Your task to perform on an android device: turn off picture-in-picture Image 0: 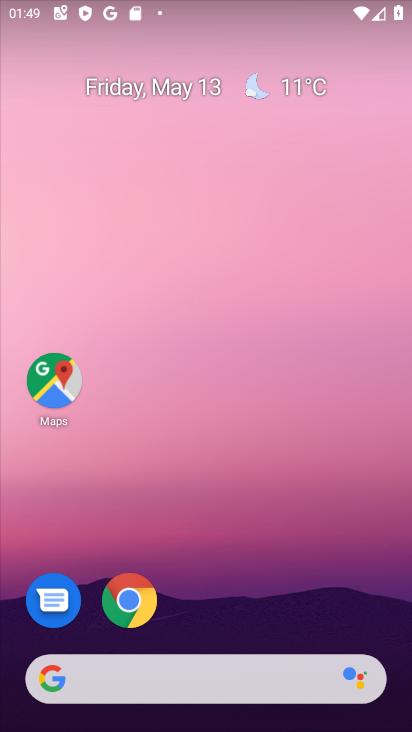
Step 0: drag from (205, 598) to (268, 371)
Your task to perform on an android device: turn off picture-in-picture Image 1: 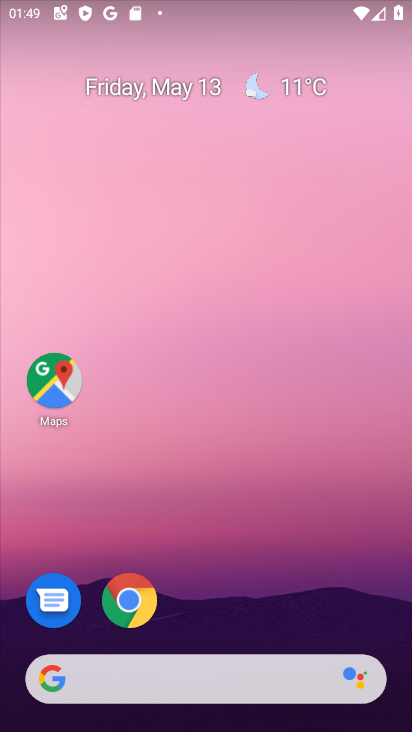
Step 1: drag from (195, 615) to (224, 121)
Your task to perform on an android device: turn off picture-in-picture Image 2: 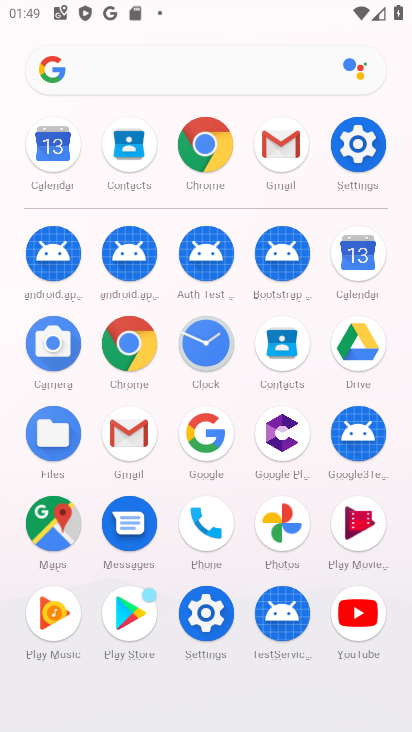
Step 2: click (197, 617)
Your task to perform on an android device: turn off picture-in-picture Image 3: 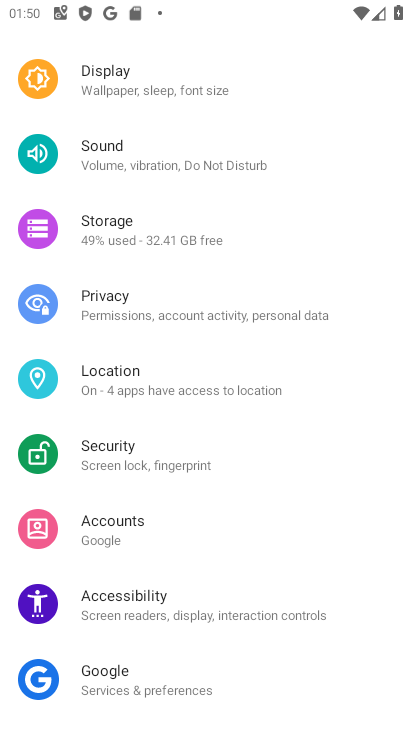
Step 3: drag from (190, 157) to (199, 634)
Your task to perform on an android device: turn off picture-in-picture Image 4: 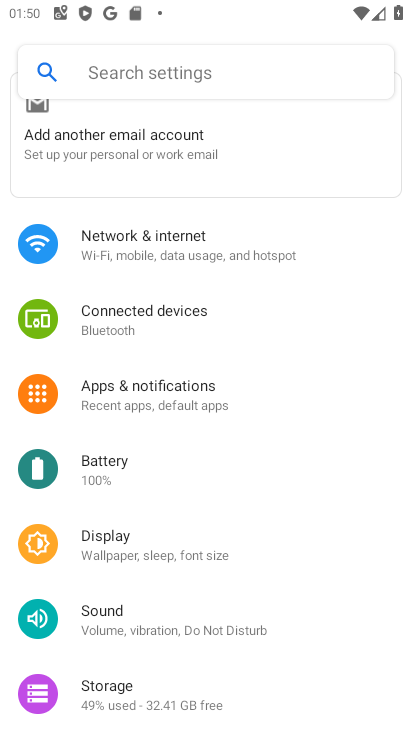
Step 4: click (168, 407)
Your task to perform on an android device: turn off picture-in-picture Image 5: 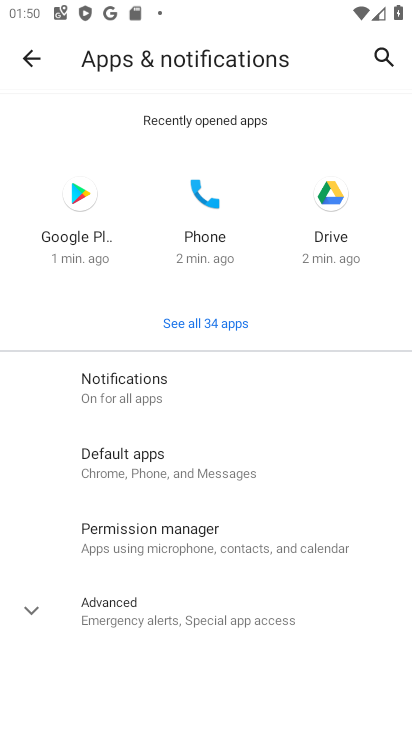
Step 5: click (163, 615)
Your task to perform on an android device: turn off picture-in-picture Image 6: 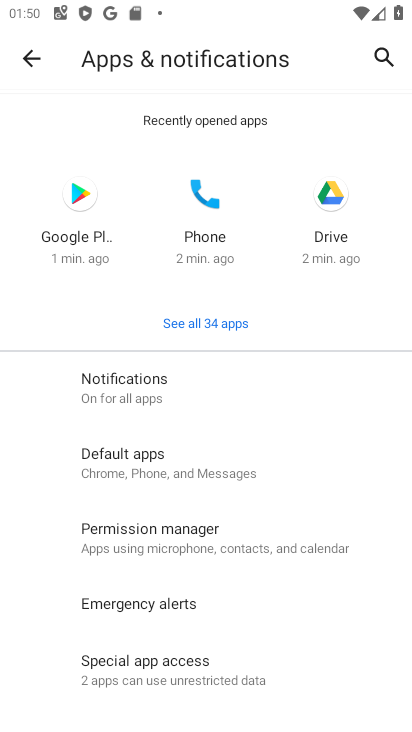
Step 6: click (189, 373)
Your task to perform on an android device: turn off picture-in-picture Image 7: 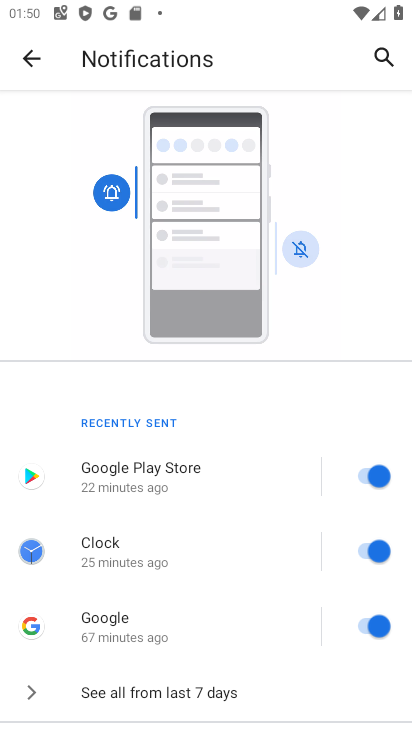
Step 7: drag from (196, 615) to (265, 247)
Your task to perform on an android device: turn off picture-in-picture Image 8: 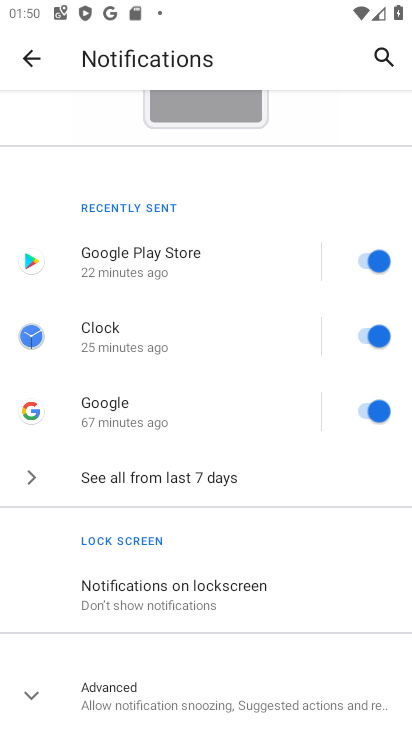
Step 8: click (160, 700)
Your task to perform on an android device: turn off picture-in-picture Image 9: 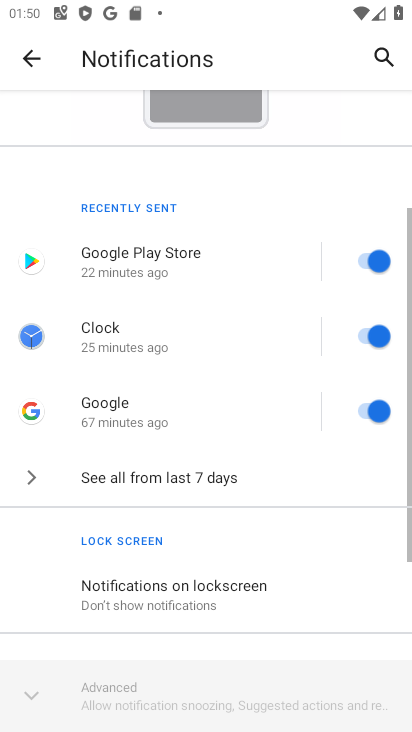
Step 9: drag from (160, 699) to (343, 133)
Your task to perform on an android device: turn off picture-in-picture Image 10: 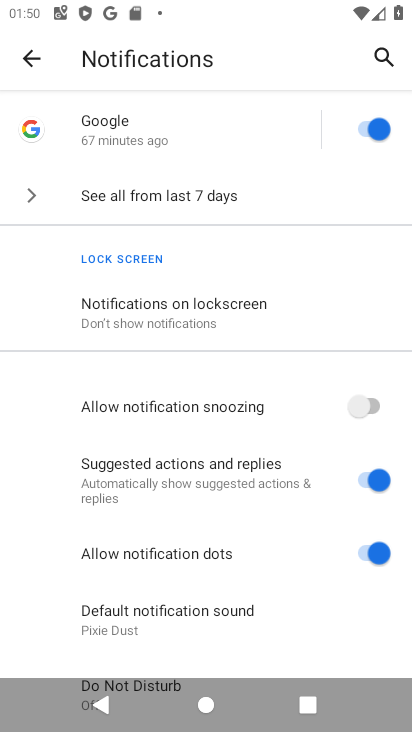
Step 10: drag from (160, 653) to (235, 267)
Your task to perform on an android device: turn off picture-in-picture Image 11: 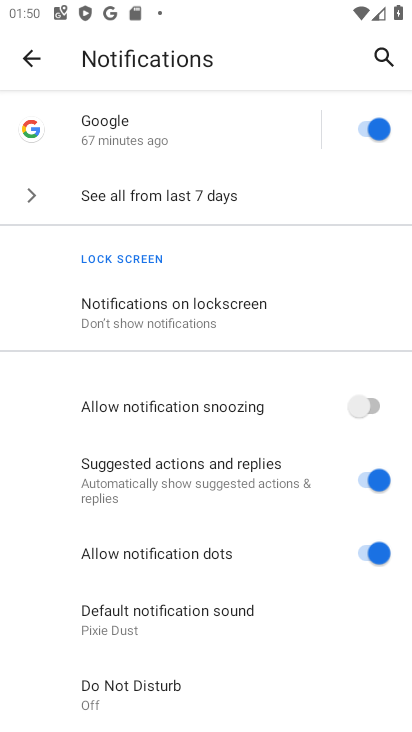
Step 11: click (38, 64)
Your task to perform on an android device: turn off picture-in-picture Image 12: 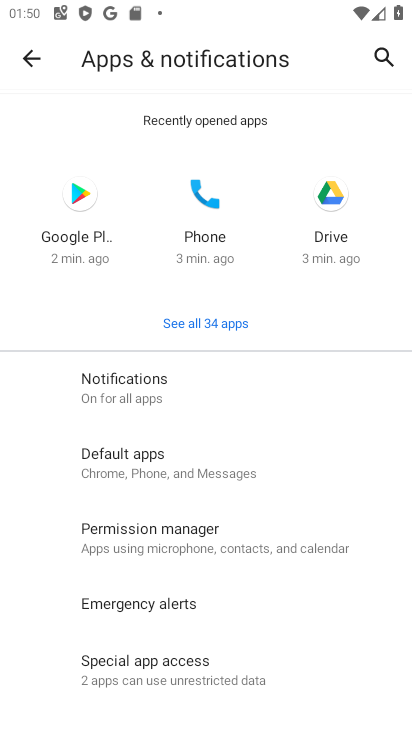
Step 12: drag from (234, 599) to (273, 179)
Your task to perform on an android device: turn off picture-in-picture Image 13: 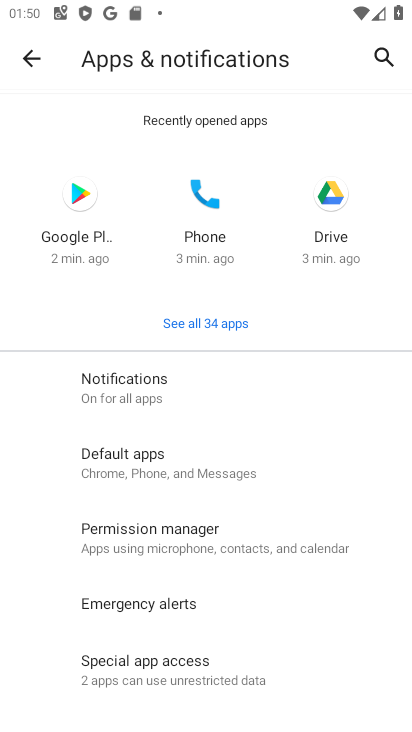
Step 13: click (179, 683)
Your task to perform on an android device: turn off picture-in-picture Image 14: 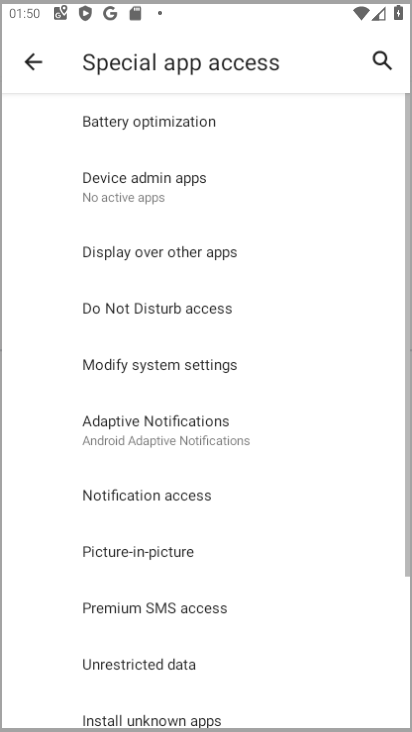
Step 14: drag from (164, 671) to (267, 152)
Your task to perform on an android device: turn off picture-in-picture Image 15: 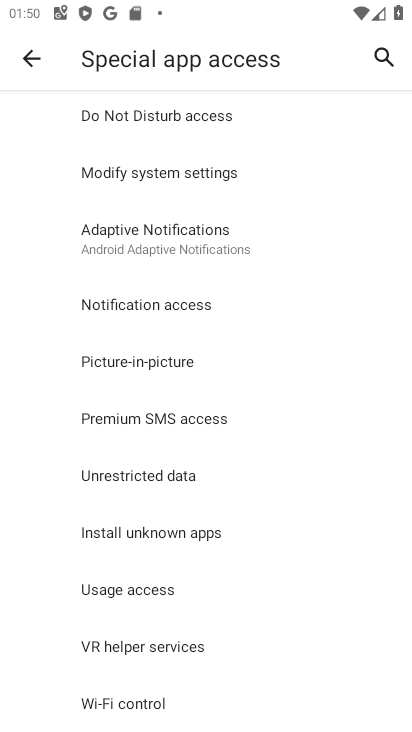
Step 15: click (168, 357)
Your task to perform on an android device: turn off picture-in-picture Image 16: 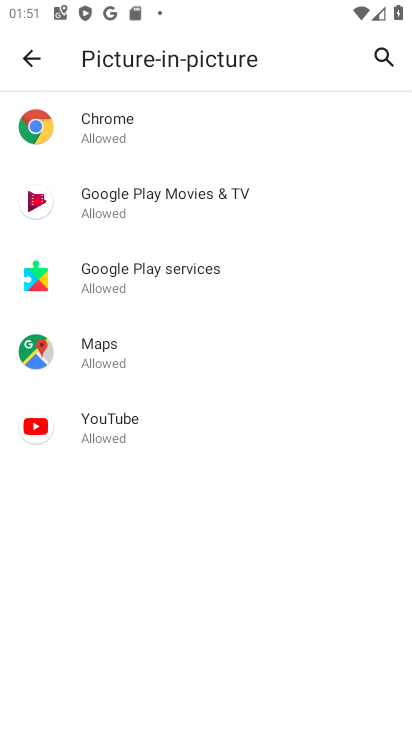
Step 16: task complete